Your task to perform on an android device: star an email in the gmail app Image 0: 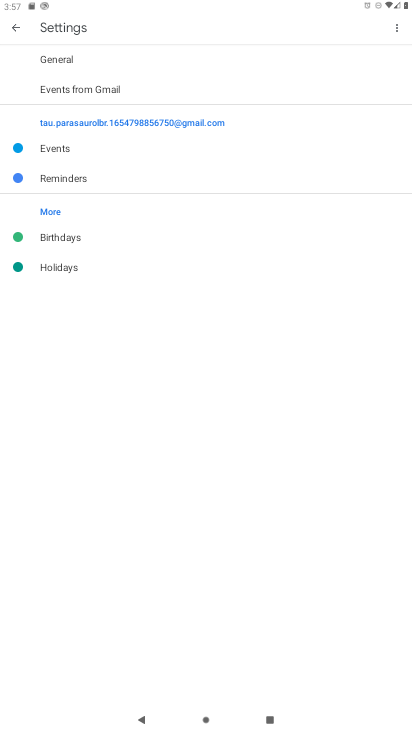
Step 0: press home button
Your task to perform on an android device: star an email in the gmail app Image 1: 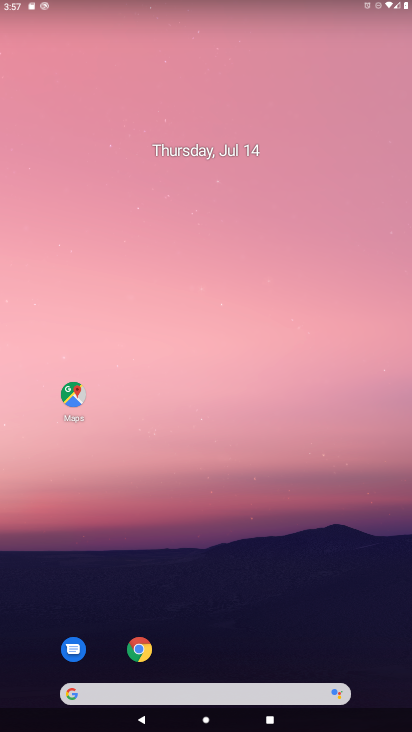
Step 1: drag from (208, 642) to (228, 32)
Your task to perform on an android device: star an email in the gmail app Image 2: 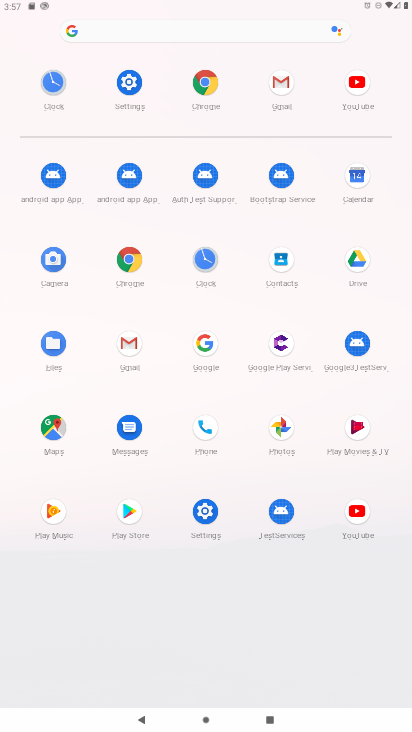
Step 2: click (126, 346)
Your task to perform on an android device: star an email in the gmail app Image 3: 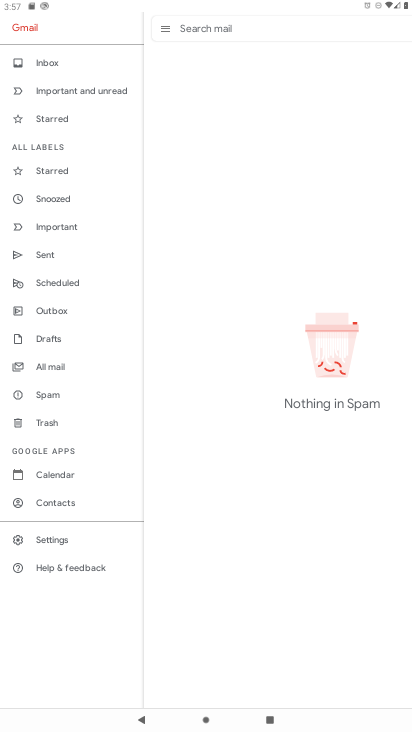
Step 3: click (53, 58)
Your task to perform on an android device: star an email in the gmail app Image 4: 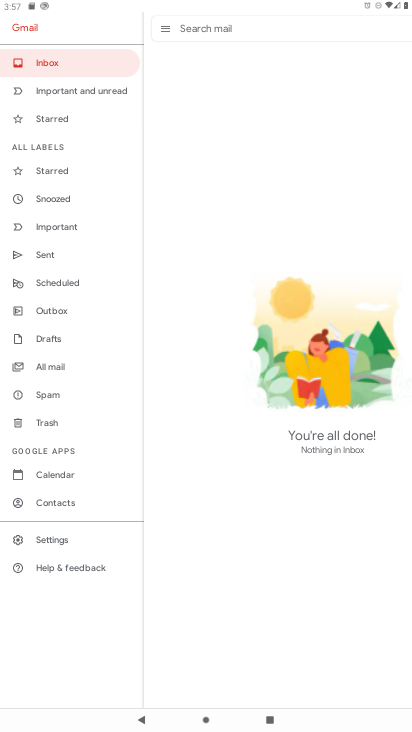
Step 4: task complete